Your task to perform on an android device: turn pop-ups on in chrome Image 0: 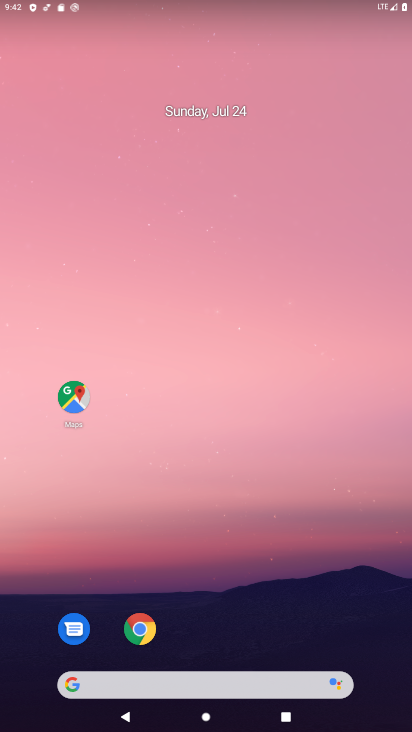
Step 0: press home button
Your task to perform on an android device: turn pop-ups on in chrome Image 1: 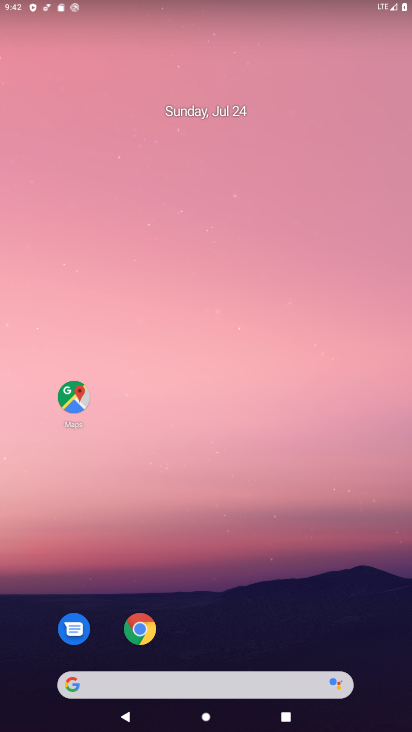
Step 1: click (140, 622)
Your task to perform on an android device: turn pop-ups on in chrome Image 2: 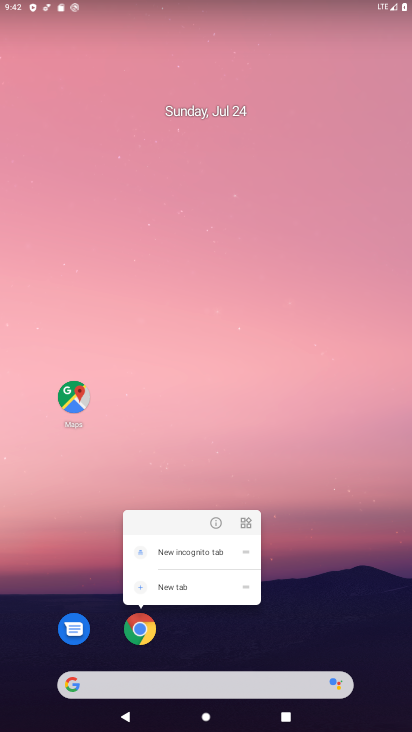
Step 2: click (140, 622)
Your task to perform on an android device: turn pop-ups on in chrome Image 3: 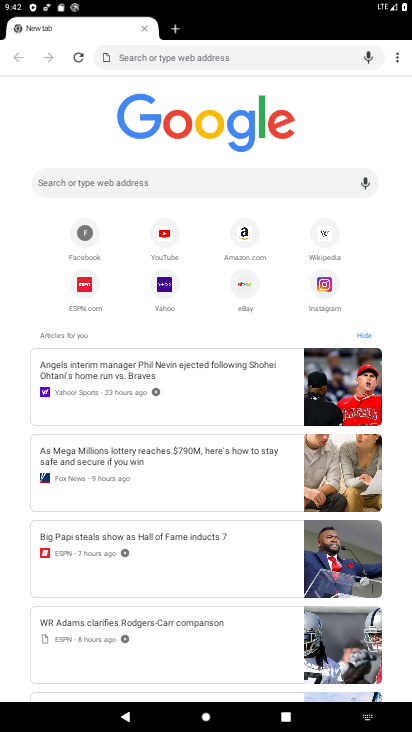
Step 3: drag from (396, 56) to (276, 259)
Your task to perform on an android device: turn pop-ups on in chrome Image 4: 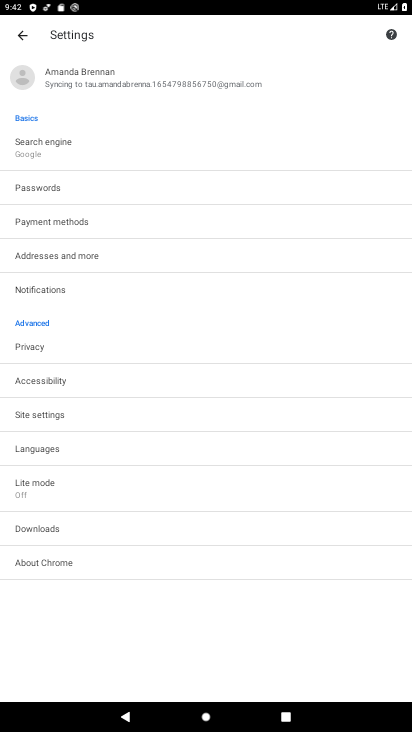
Step 4: click (38, 418)
Your task to perform on an android device: turn pop-ups on in chrome Image 5: 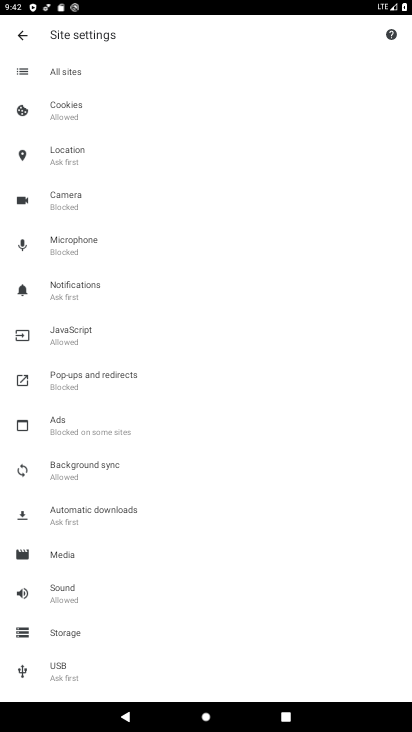
Step 5: click (90, 371)
Your task to perform on an android device: turn pop-ups on in chrome Image 6: 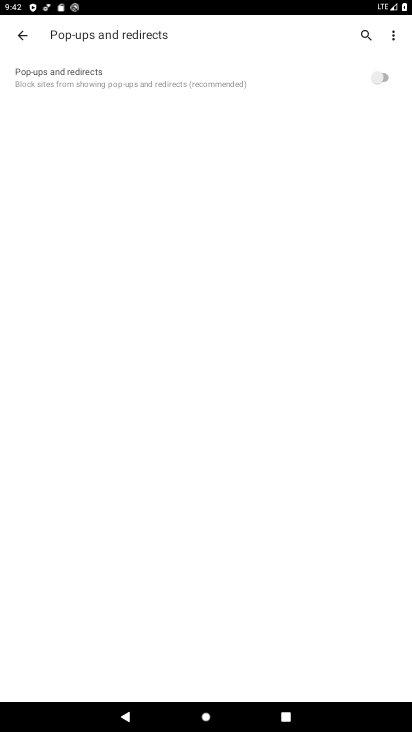
Step 6: click (382, 79)
Your task to perform on an android device: turn pop-ups on in chrome Image 7: 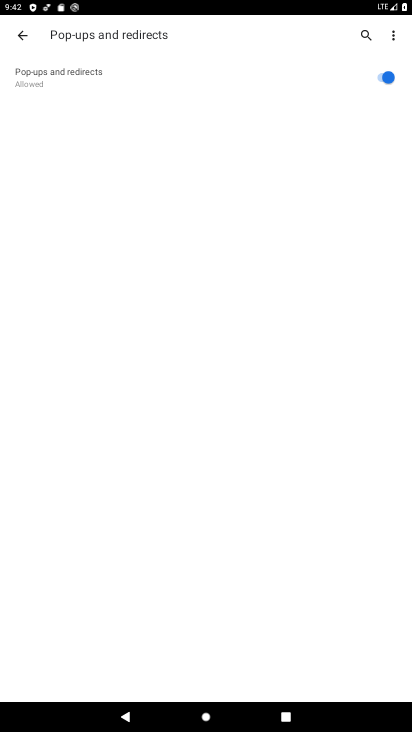
Step 7: task complete